Your task to perform on an android device: What is the speed of a tiger? Image 0: 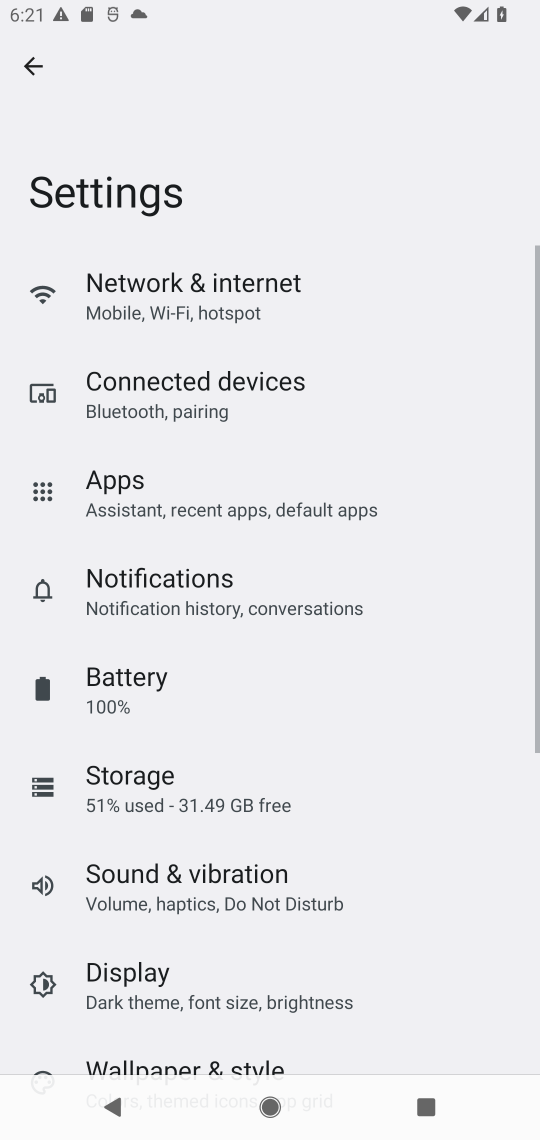
Step 0: press home button
Your task to perform on an android device: What is the speed of a tiger? Image 1: 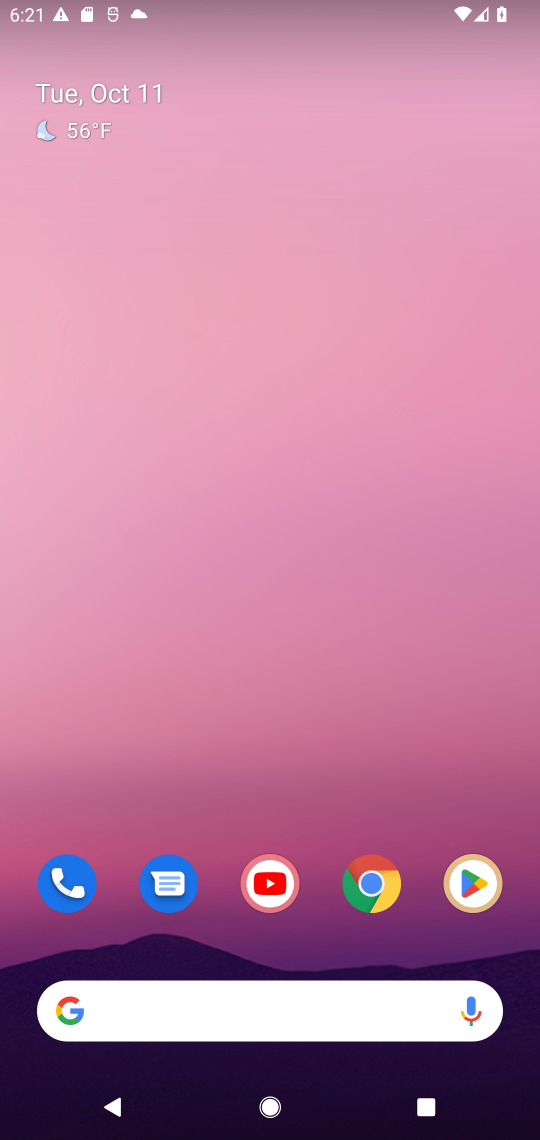
Step 1: drag from (326, 946) to (515, 602)
Your task to perform on an android device: What is the speed of a tiger? Image 2: 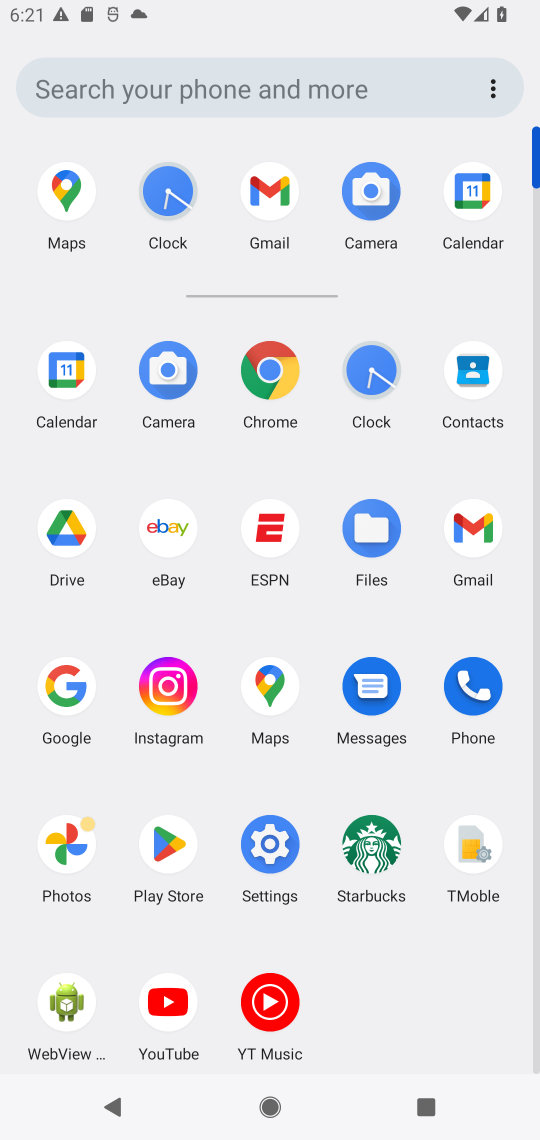
Step 2: click (269, 369)
Your task to perform on an android device: What is the speed of a tiger? Image 3: 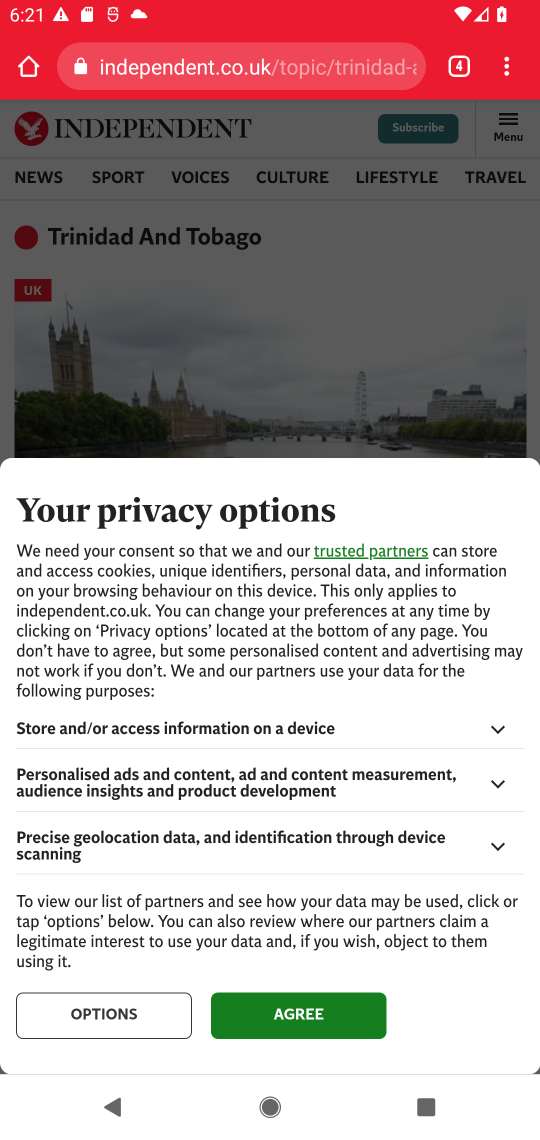
Step 3: click (244, 47)
Your task to perform on an android device: What is the speed of a tiger? Image 4: 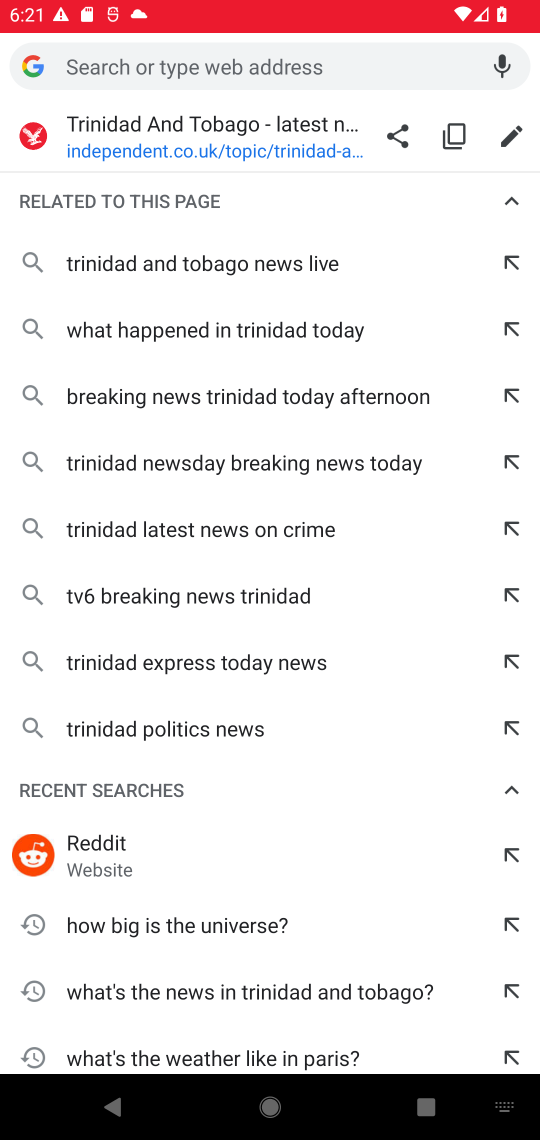
Step 4: type "What is the speed of a tiger?"
Your task to perform on an android device: What is the speed of a tiger? Image 5: 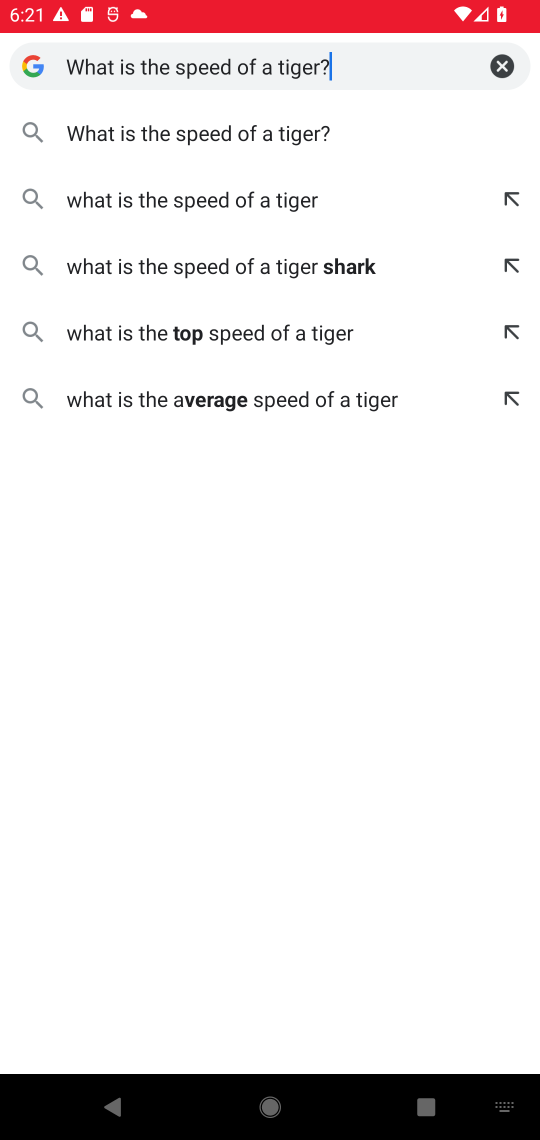
Step 5: press enter
Your task to perform on an android device: What is the speed of a tiger? Image 6: 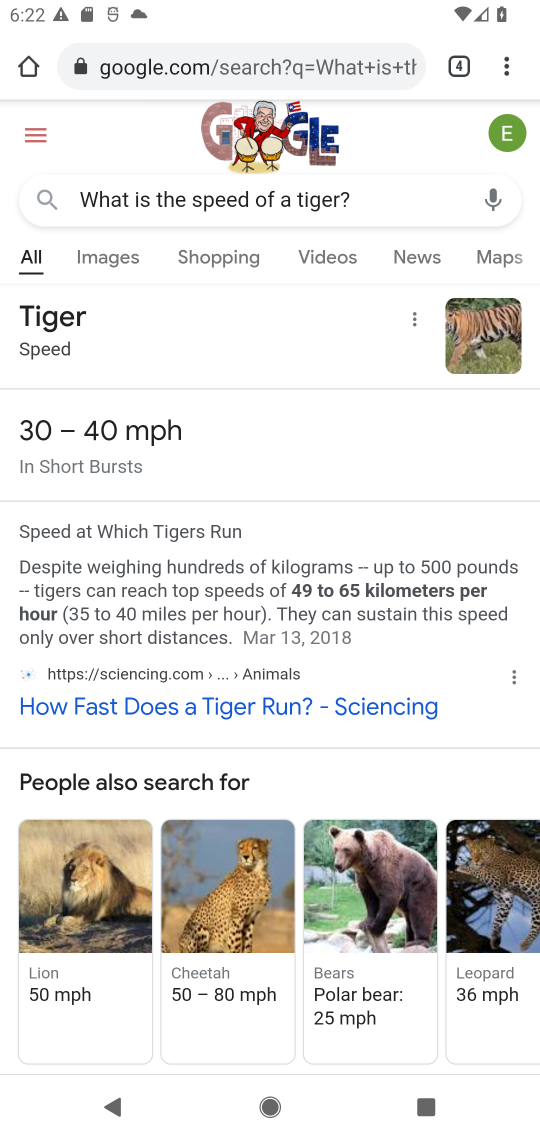
Step 6: task complete